Your task to perform on an android device: delete a single message in the gmail app Image 0: 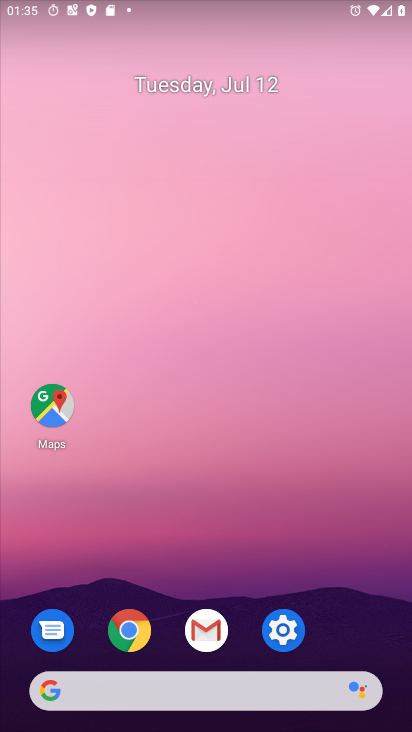
Step 0: click (202, 619)
Your task to perform on an android device: delete a single message in the gmail app Image 1: 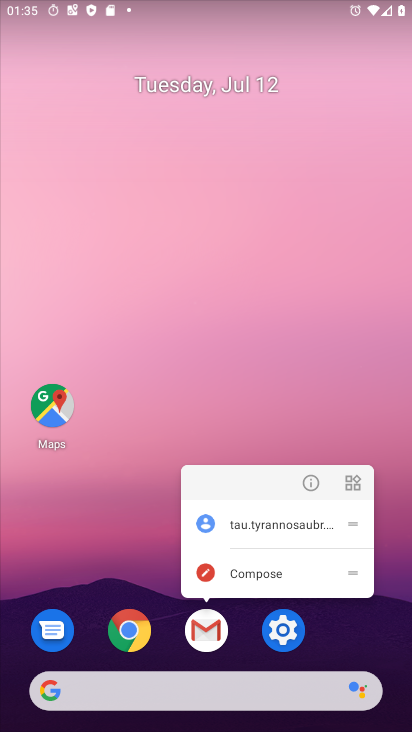
Step 1: click (198, 625)
Your task to perform on an android device: delete a single message in the gmail app Image 2: 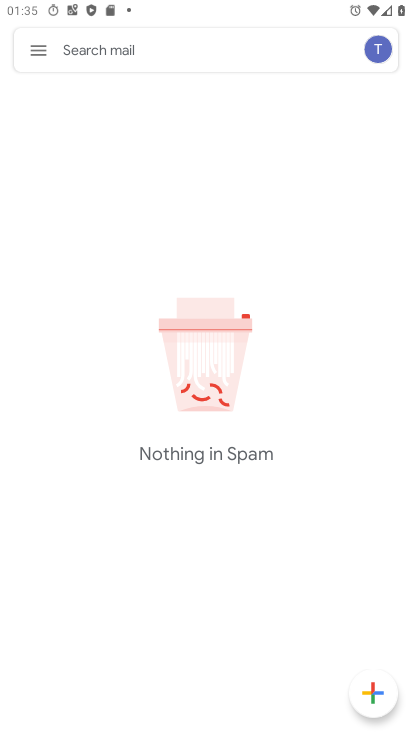
Step 2: click (32, 55)
Your task to perform on an android device: delete a single message in the gmail app Image 3: 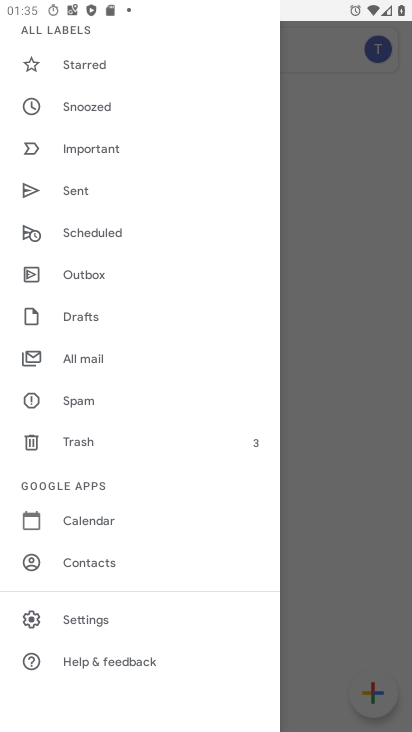
Step 3: click (86, 356)
Your task to perform on an android device: delete a single message in the gmail app Image 4: 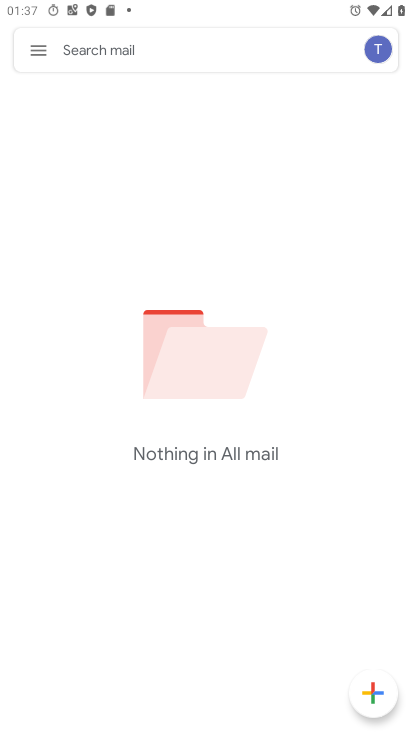
Step 4: task complete